Your task to perform on an android device: set an alarm Image 0: 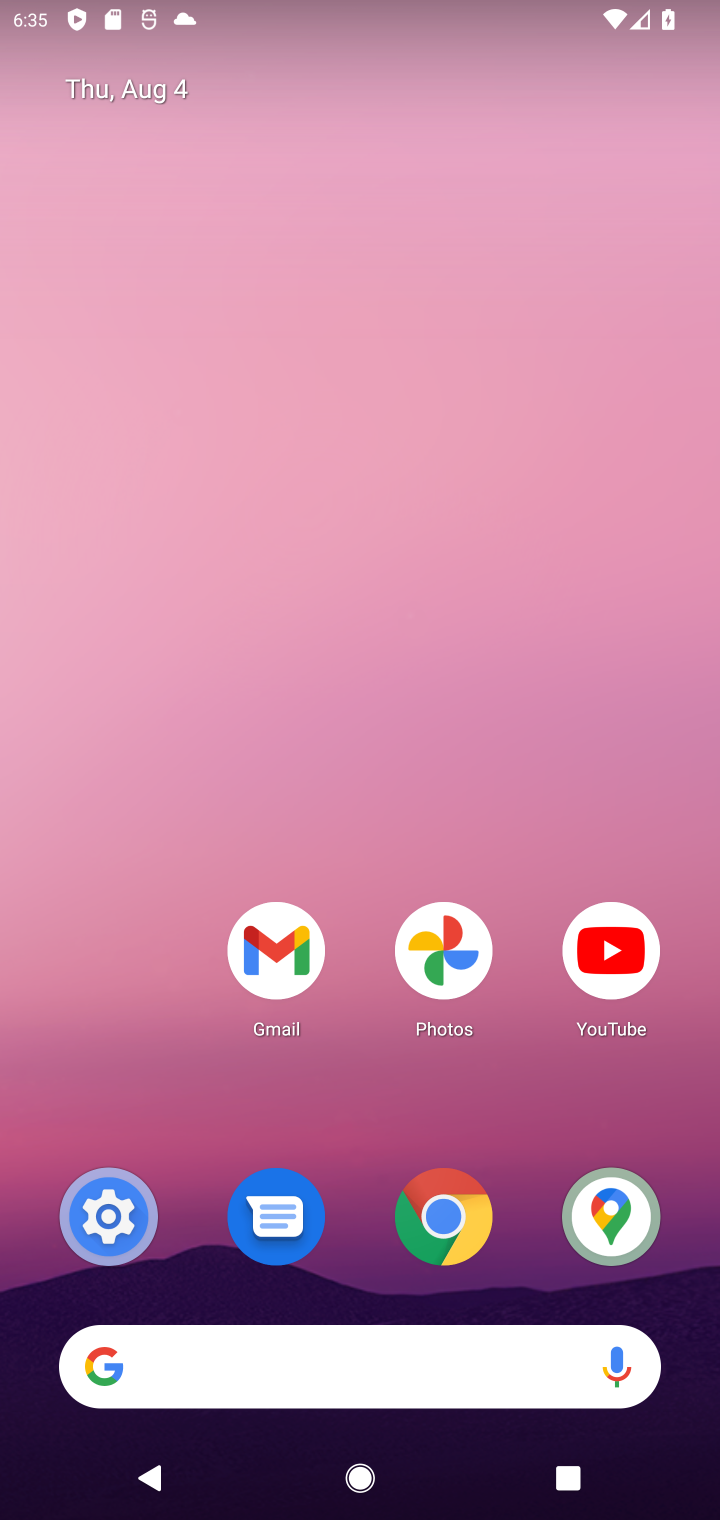
Step 0: click (118, 1219)
Your task to perform on an android device: set an alarm Image 1: 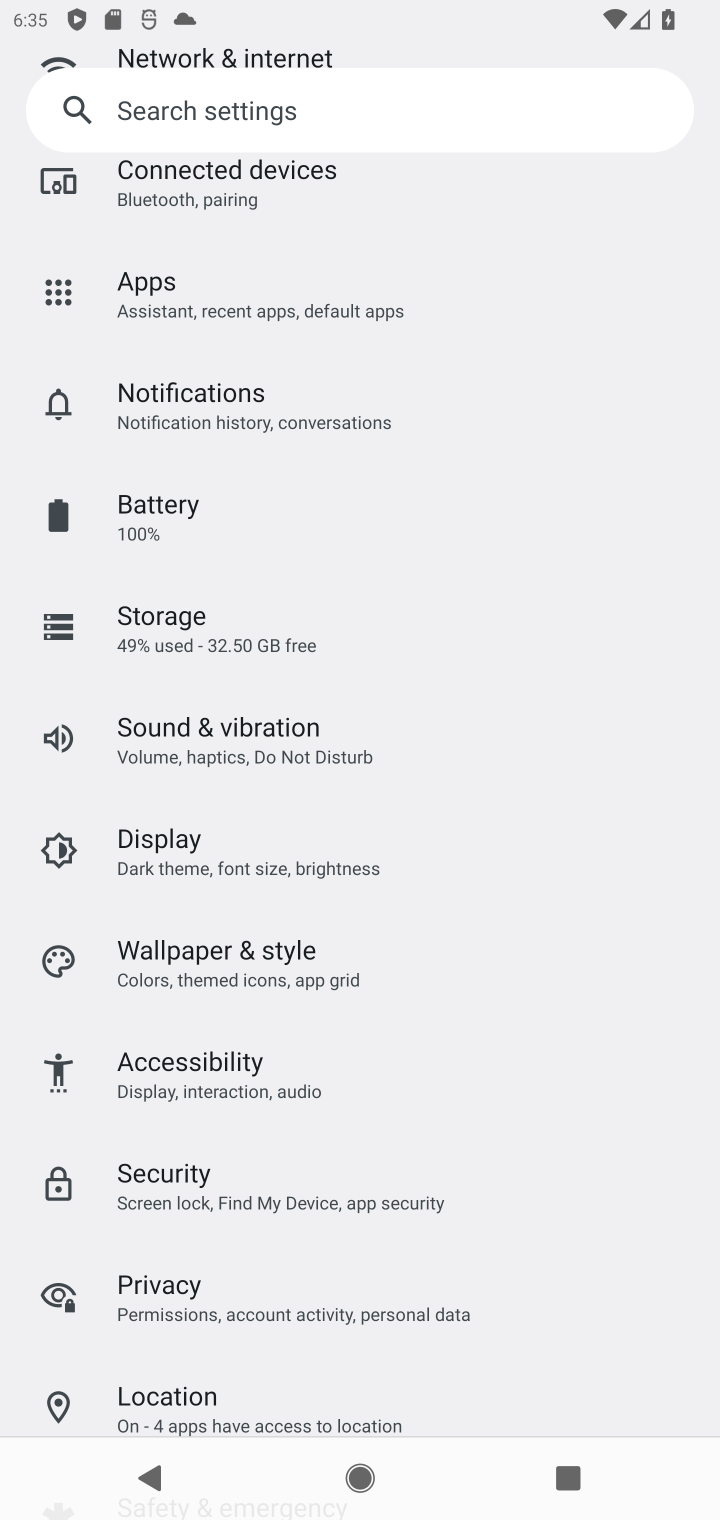
Step 1: drag from (299, 196) to (398, 514)
Your task to perform on an android device: set an alarm Image 2: 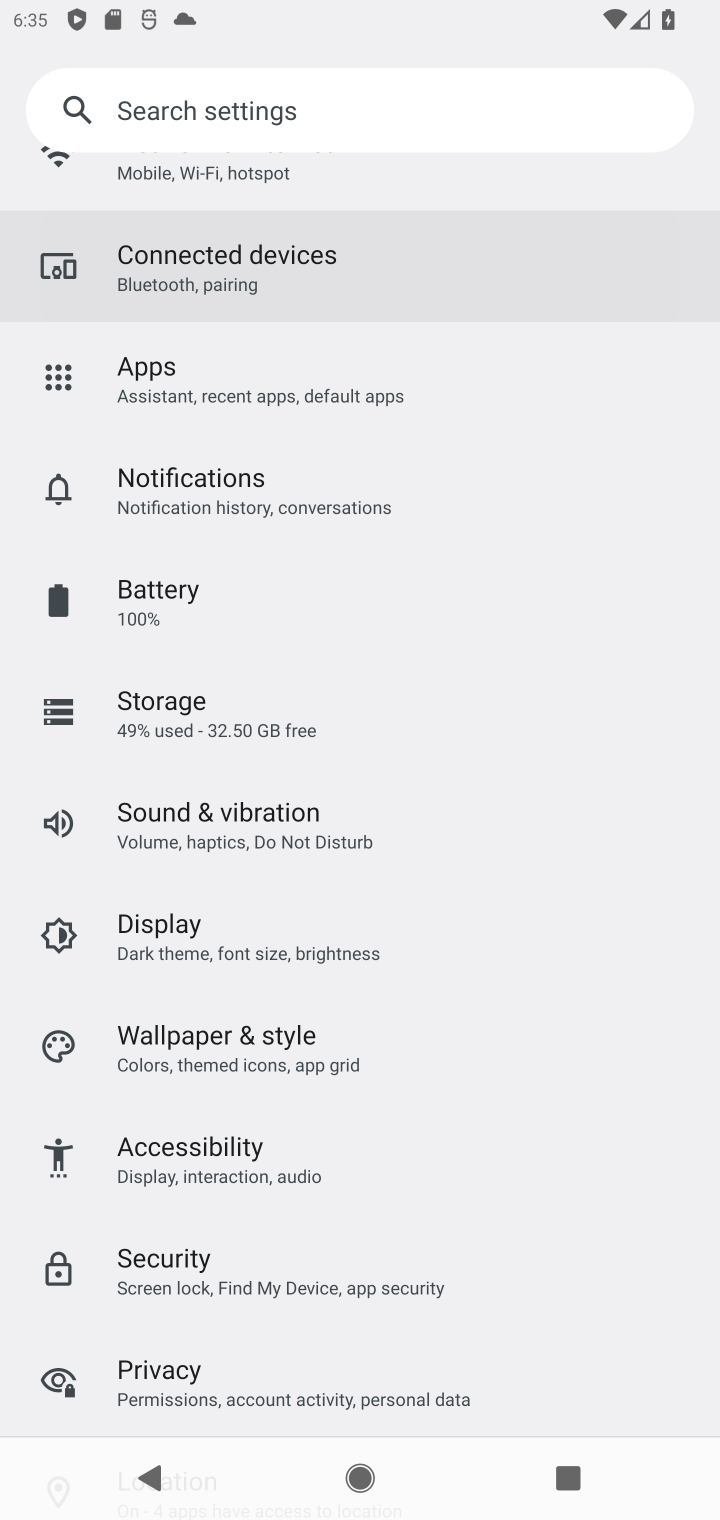
Step 2: drag from (399, 517) to (595, 1062)
Your task to perform on an android device: set an alarm Image 3: 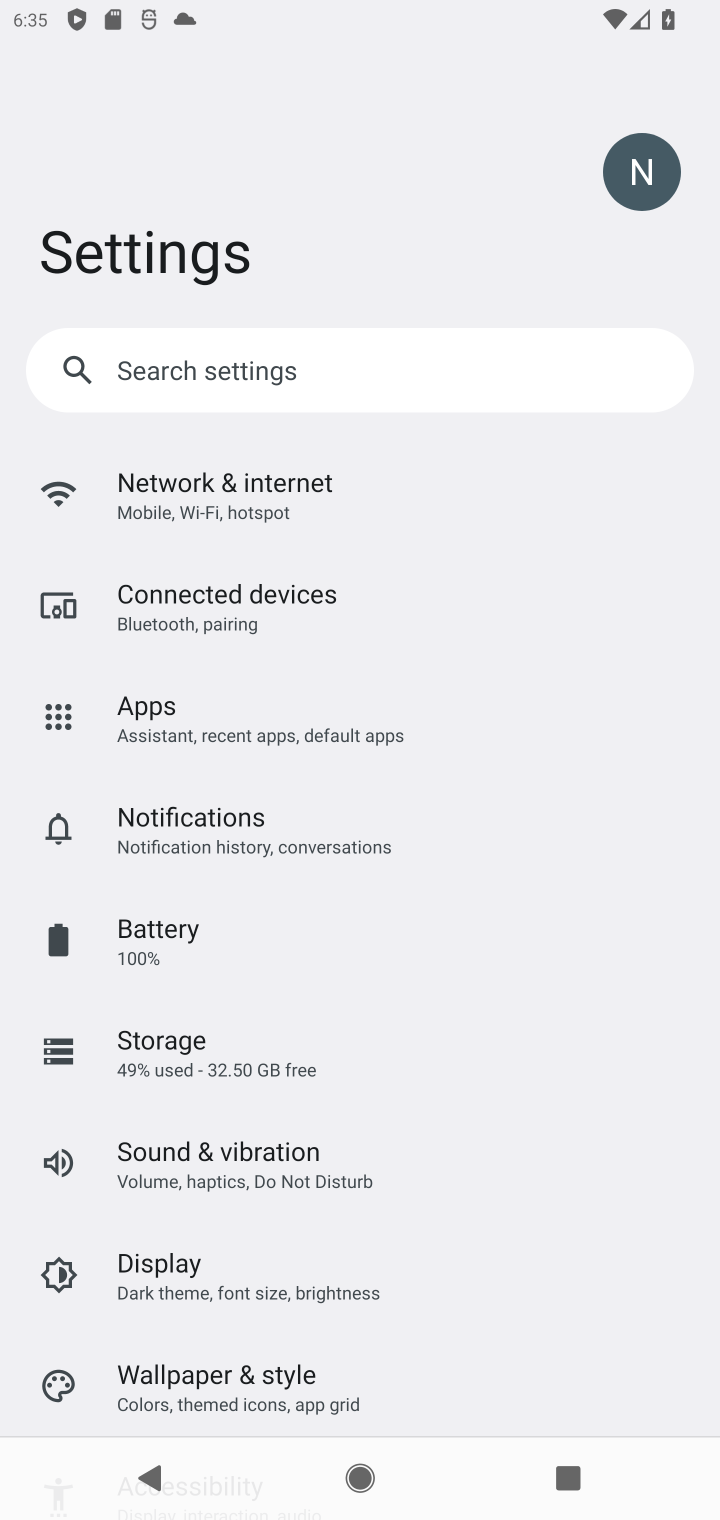
Step 3: press home button
Your task to perform on an android device: set an alarm Image 4: 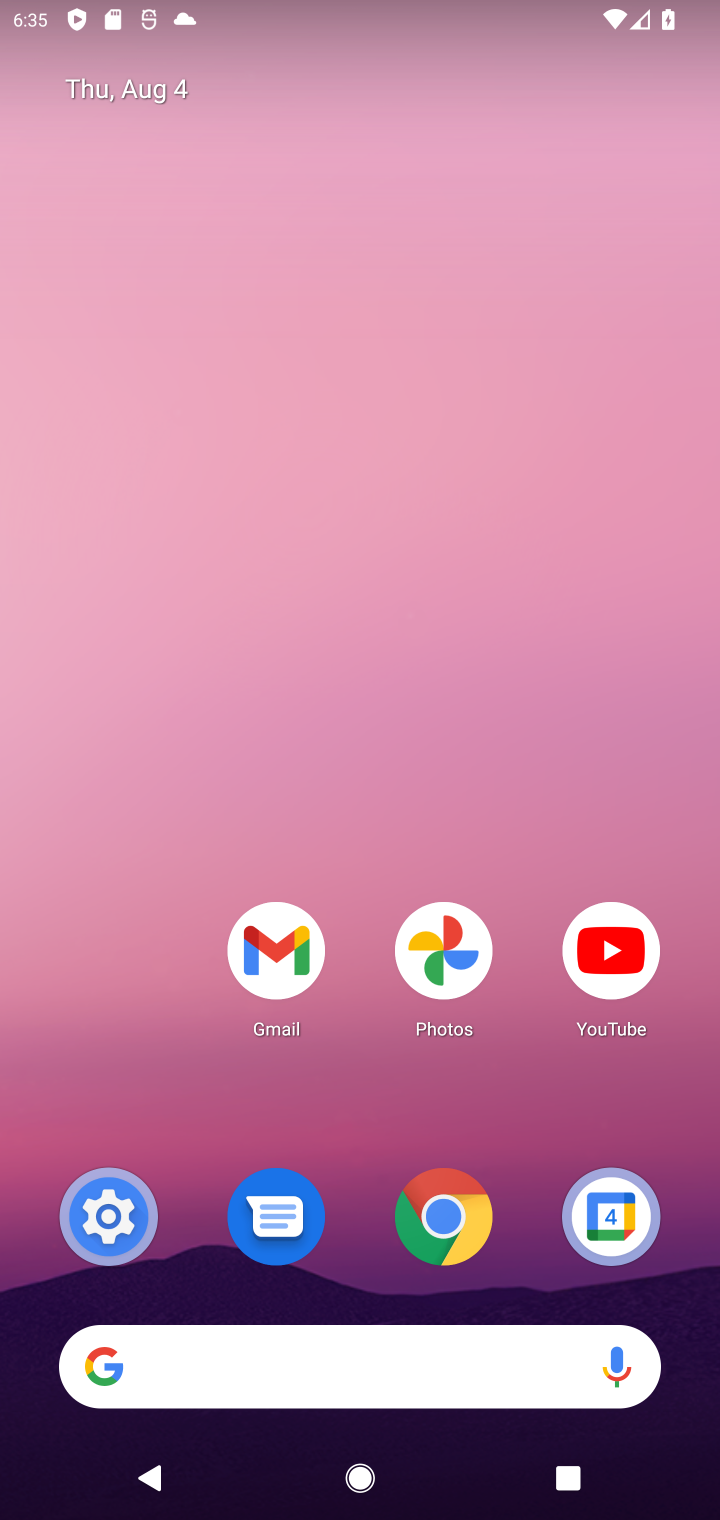
Step 4: drag from (369, 1170) to (343, 220)
Your task to perform on an android device: set an alarm Image 5: 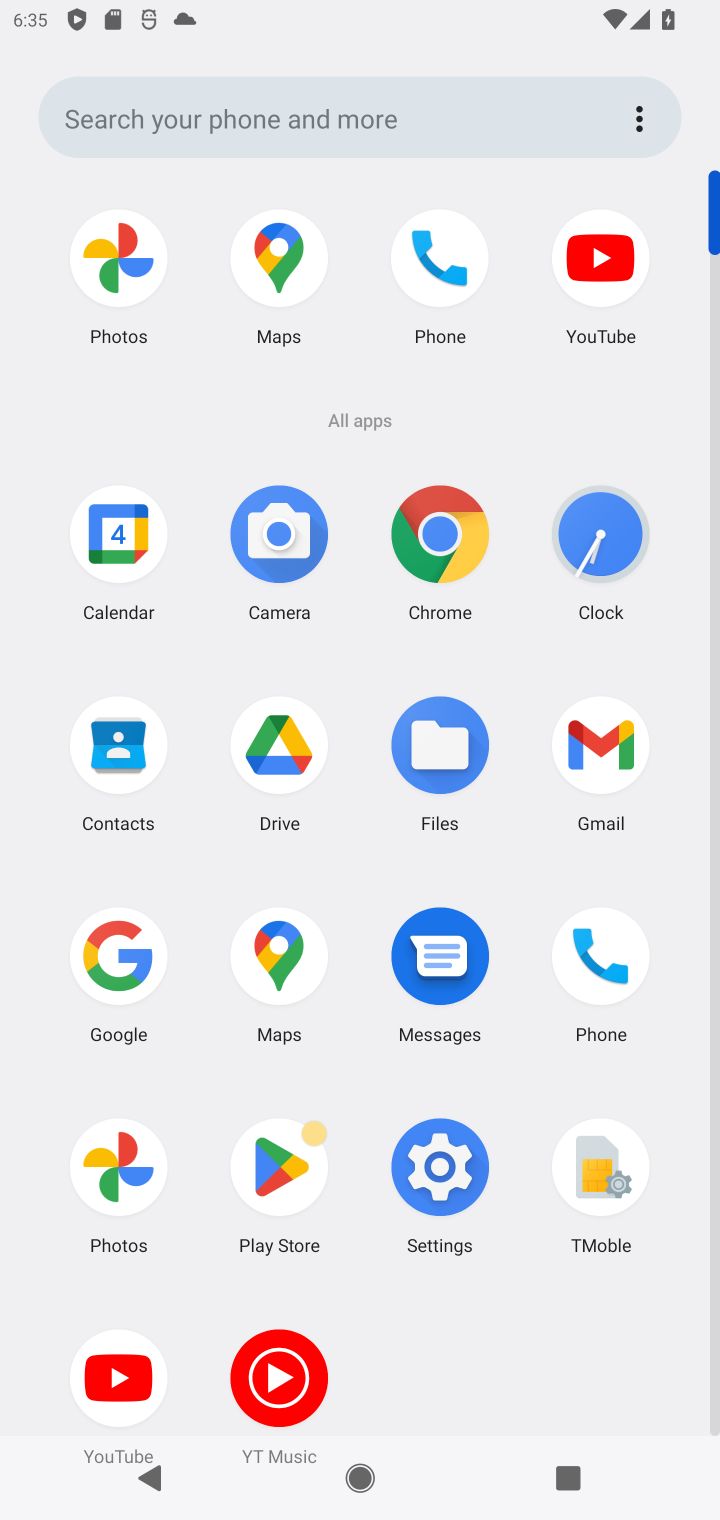
Step 5: click (582, 547)
Your task to perform on an android device: set an alarm Image 6: 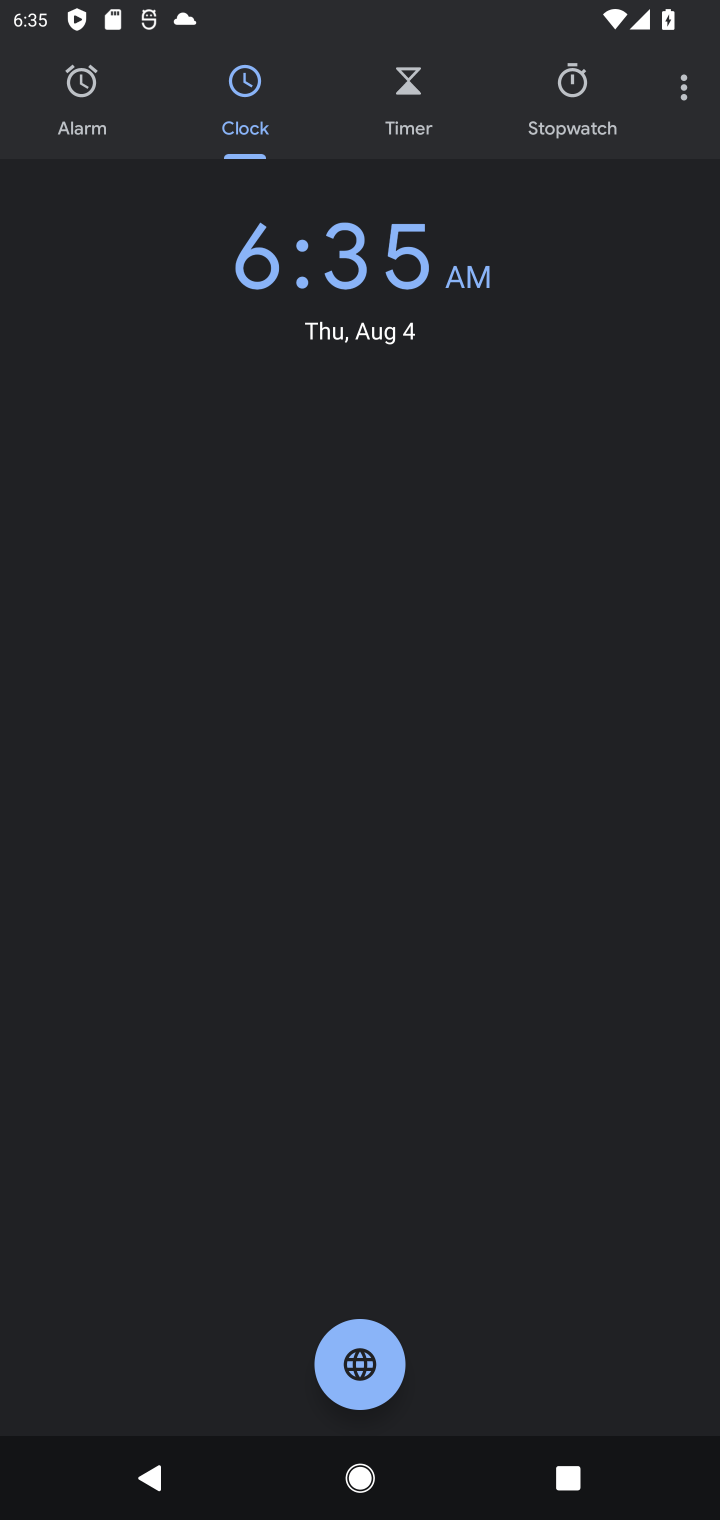
Step 6: click (62, 101)
Your task to perform on an android device: set an alarm Image 7: 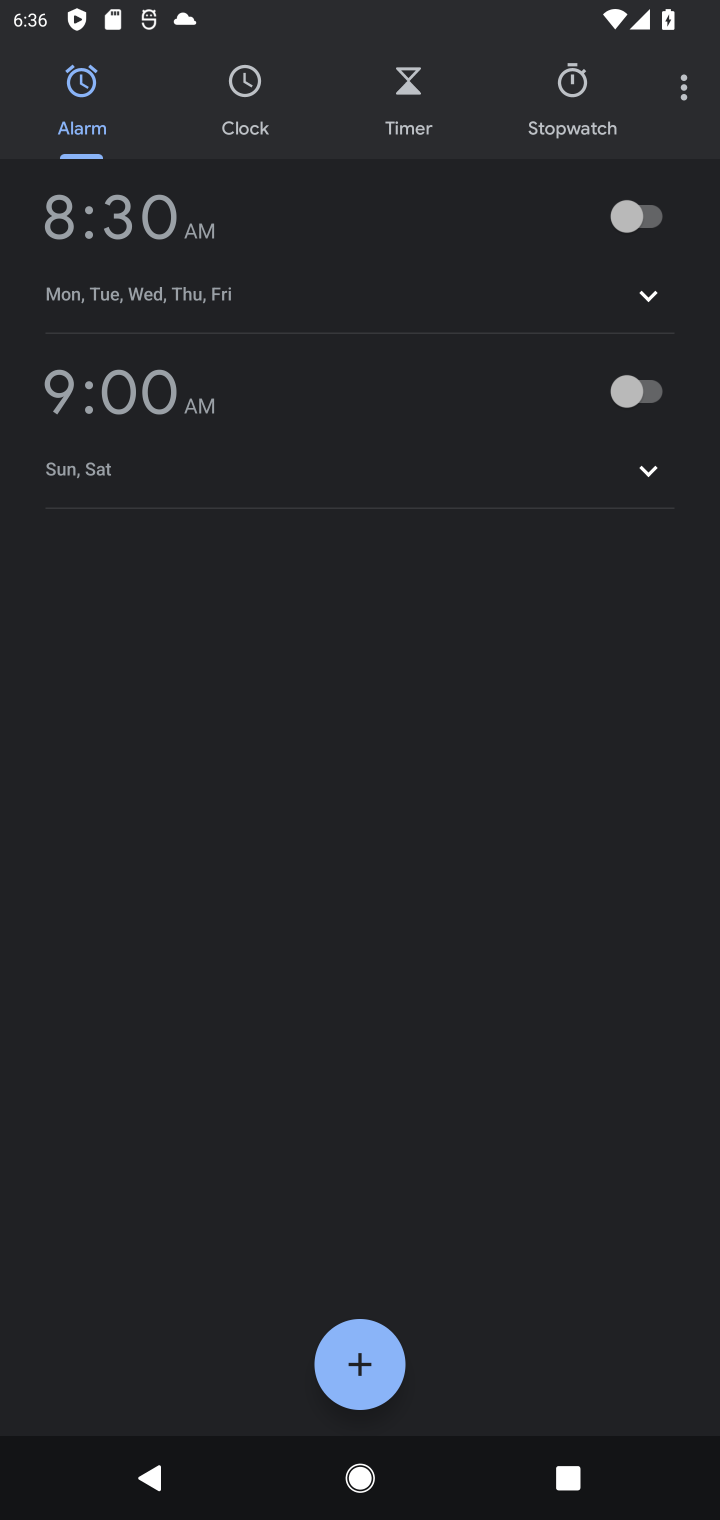
Step 7: click (651, 217)
Your task to perform on an android device: set an alarm Image 8: 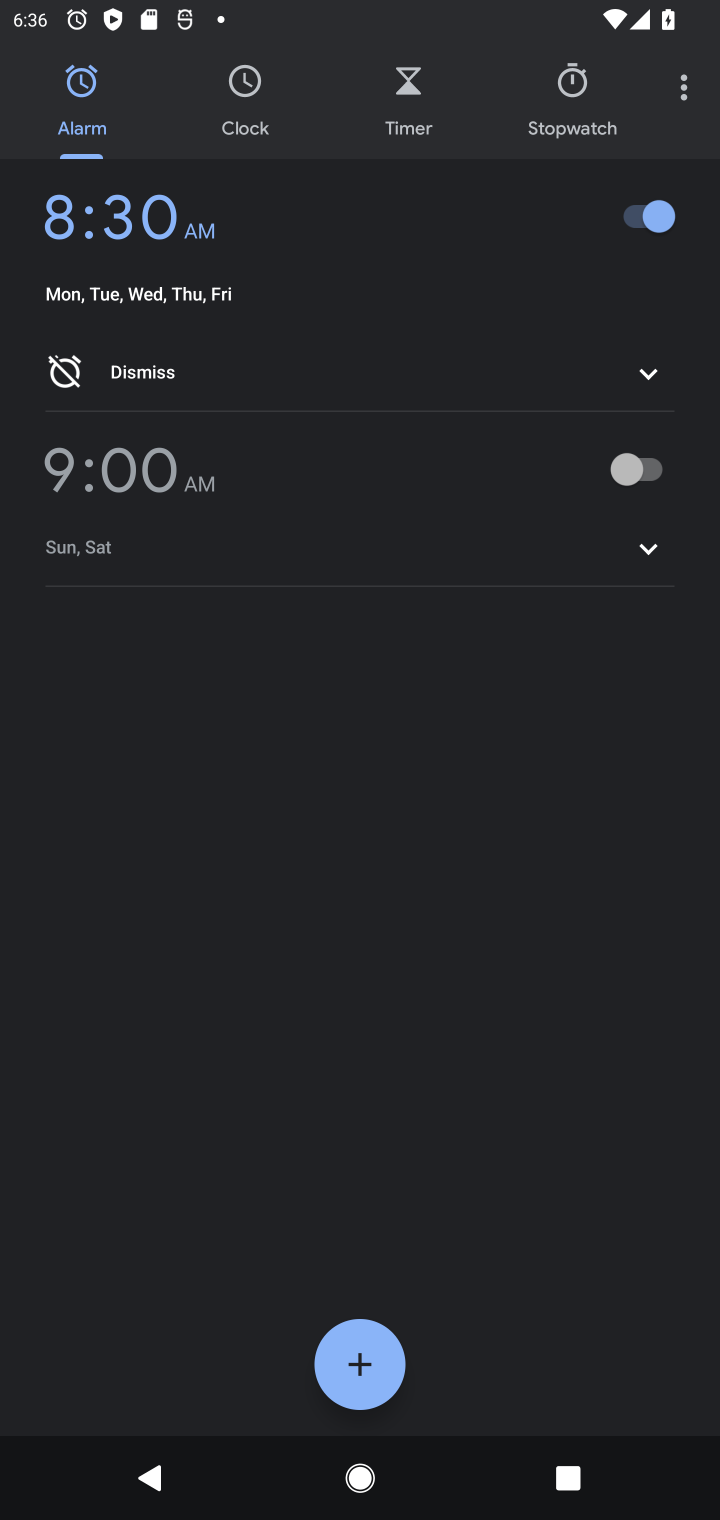
Step 8: task complete